Your task to perform on an android device: turn off javascript in the chrome app Image 0: 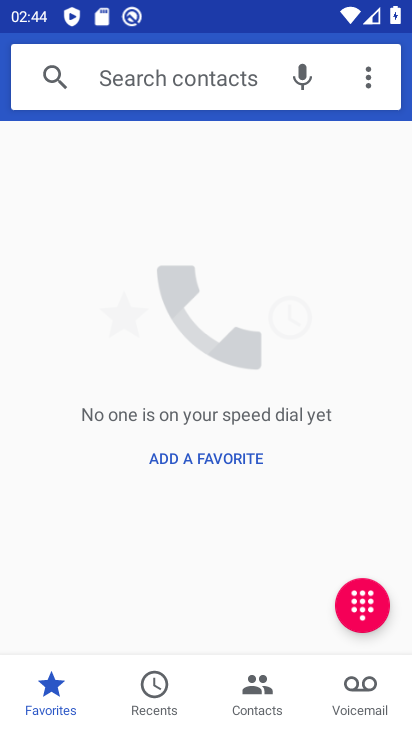
Step 0: press home button
Your task to perform on an android device: turn off javascript in the chrome app Image 1: 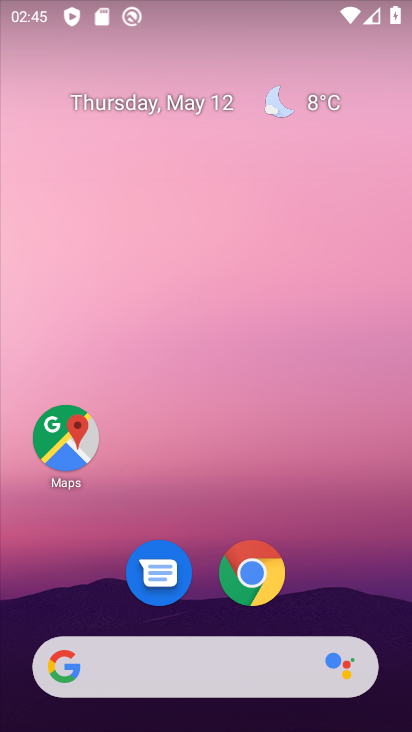
Step 1: drag from (393, 486) to (409, 57)
Your task to perform on an android device: turn off javascript in the chrome app Image 2: 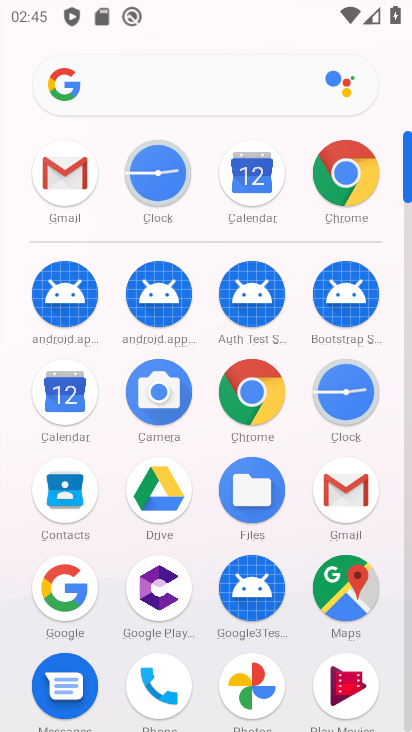
Step 2: drag from (407, 172) to (103, 646)
Your task to perform on an android device: turn off javascript in the chrome app Image 3: 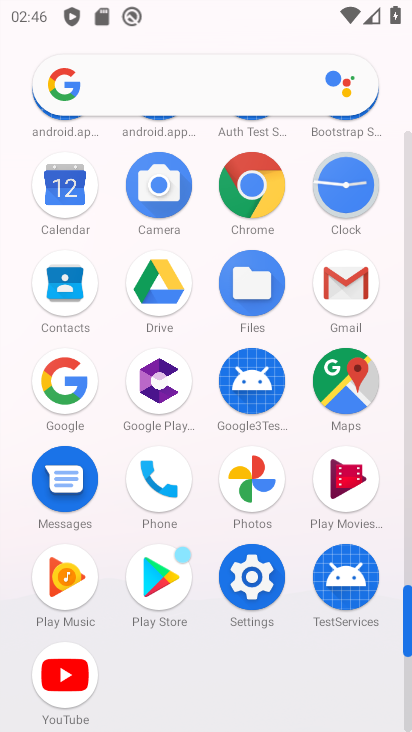
Step 3: click (243, 182)
Your task to perform on an android device: turn off javascript in the chrome app Image 4: 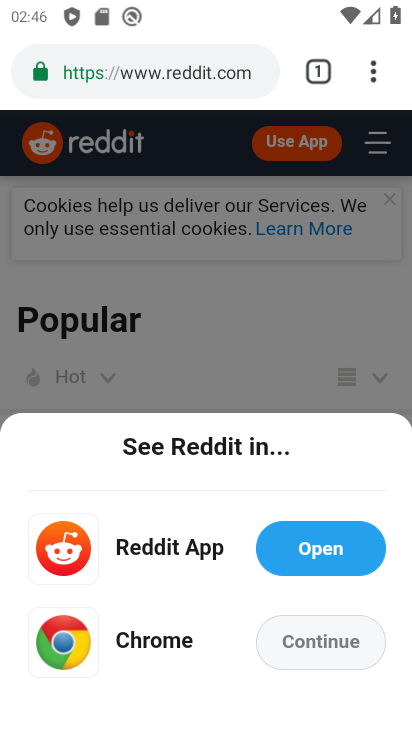
Step 4: drag from (377, 72) to (135, 571)
Your task to perform on an android device: turn off javascript in the chrome app Image 5: 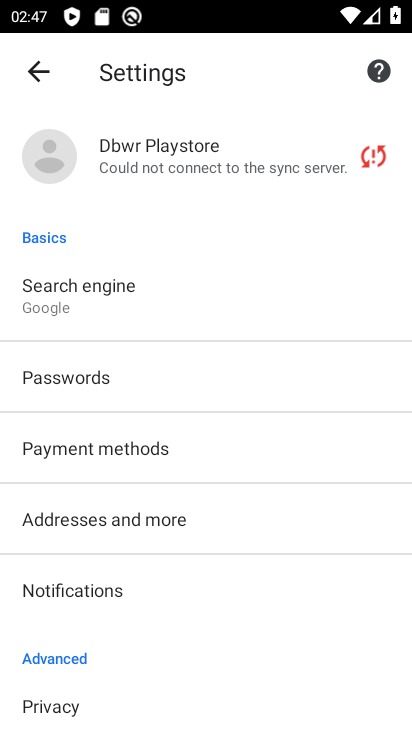
Step 5: drag from (231, 620) to (274, 22)
Your task to perform on an android device: turn off javascript in the chrome app Image 6: 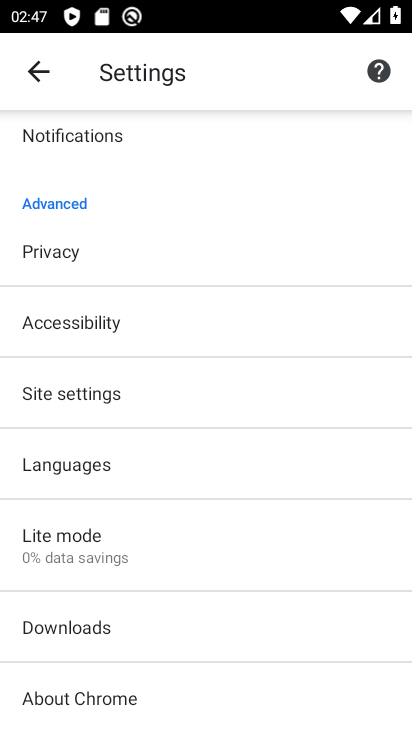
Step 6: click (316, 414)
Your task to perform on an android device: turn off javascript in the chrome app Image 7: 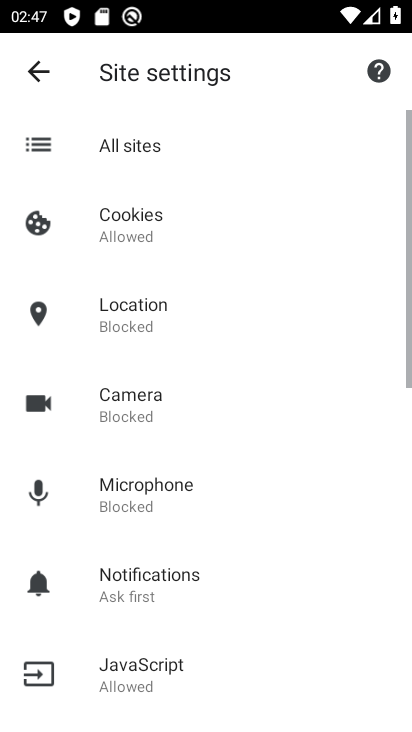
Step 7: drag from (286, 625) to (324, 347)
Your task to perform on an android device: turn off javascript in the chrome app Image 8: 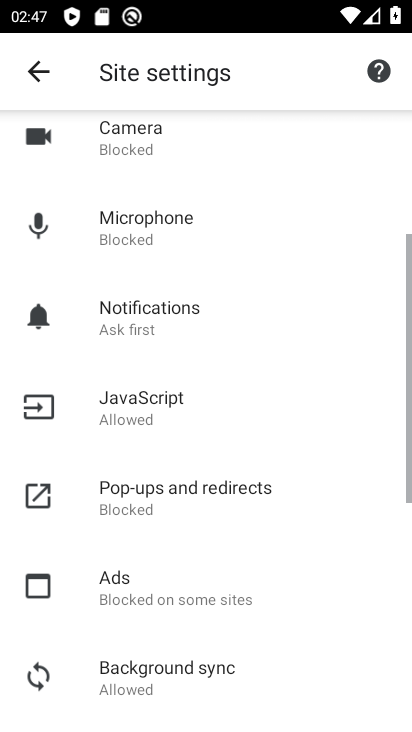
Step 8: click (232, 423)
Your task to perform on an android device: turn off javascript in the chrome app Image 9: 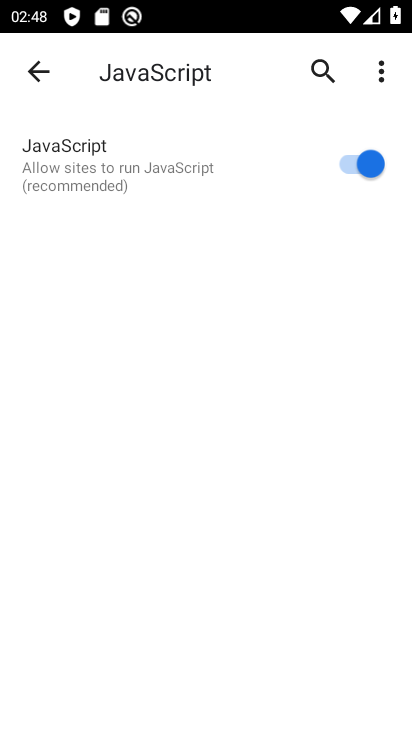
Step 9: click (299, 180)
Your task to perform on an android device: turn off javascript in the chrome app Image 10: 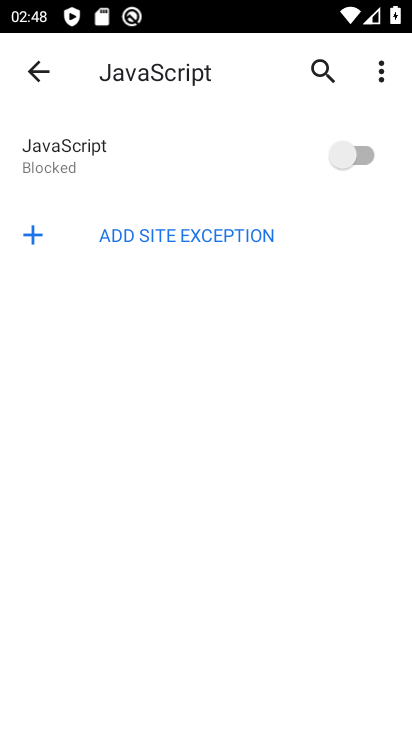
Step 10: task complete